Your task to perform on an android device: What's the weather going to be tomorrow? Image 0: 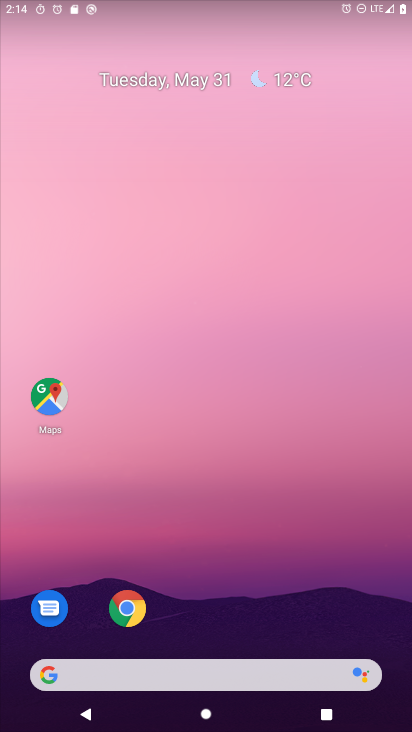
Step 0: click (286, 80)
Your task to perform on an android device: What's the weather going to be tomorrow? Image 1: 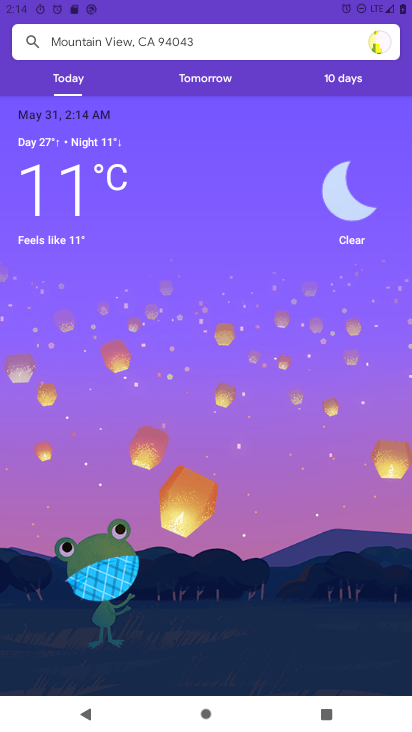
Step 1: click (200, 69)
Your task to perform on an android device: What's the weather going to be tomorrow? Image 2: 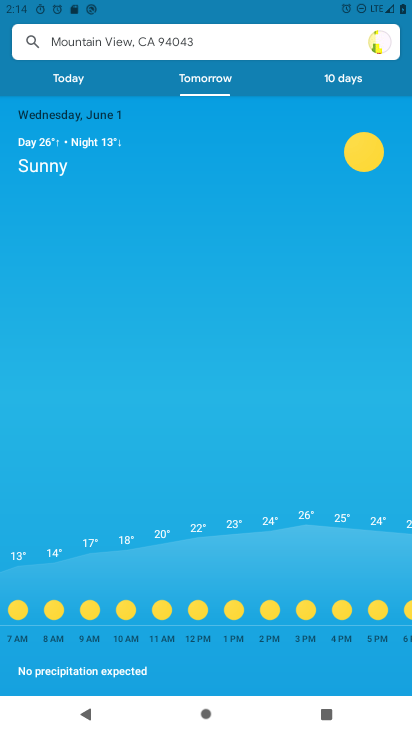
Step 2: task complete